Your task to perform on an android device: Go to Yahoo.com Image 0: 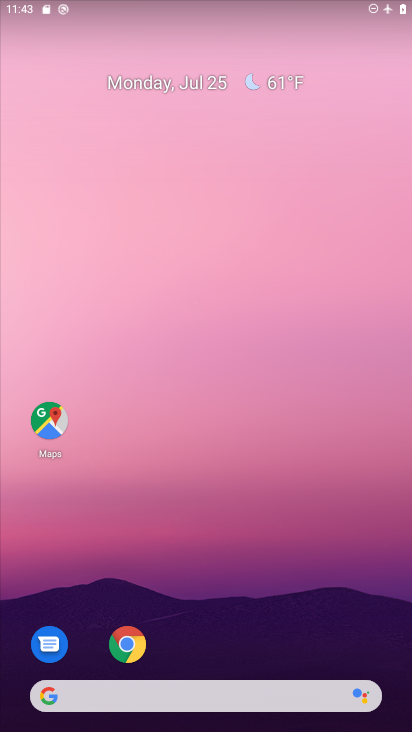
Step 0: drag from (179, 371) to (178, 208)
Your task to perform on an android device: Go to Yahoo.com Image 1: 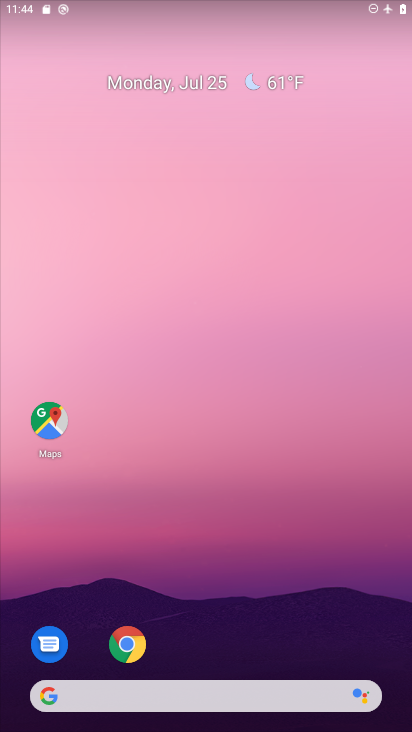
Step 1: drag from (233, 632) to (185, 262)
Your task to perform on an android device: Go to Yahoo.com Image 2: 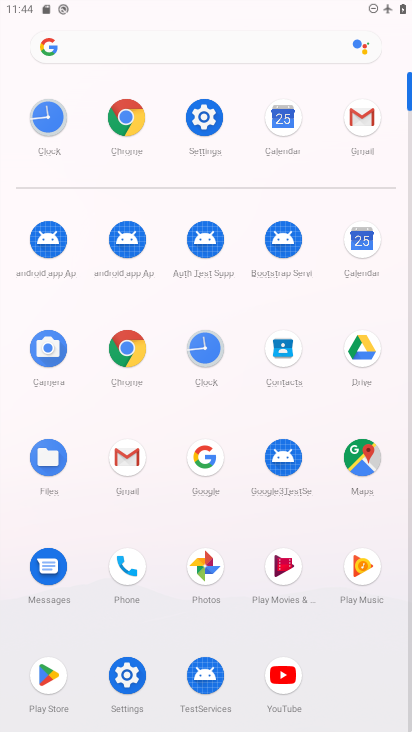
Step 2: click (132, 114)
Your task to perform on an android device: Go to Yahoo.com Image 3: 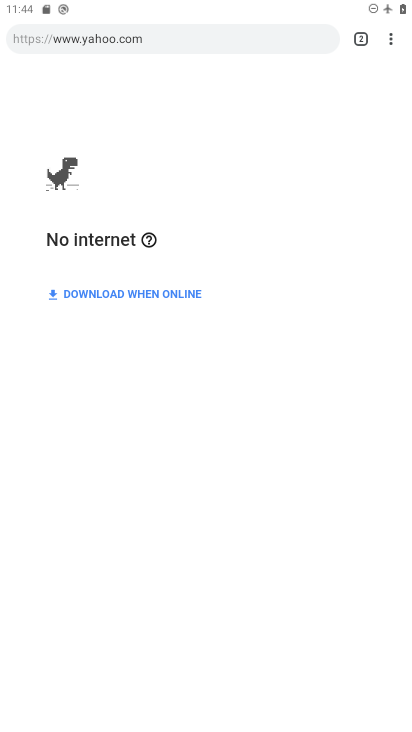
Step 3: click (398, 47)
Your task to perform on an android device: Go to Yahoo.com Image 4: 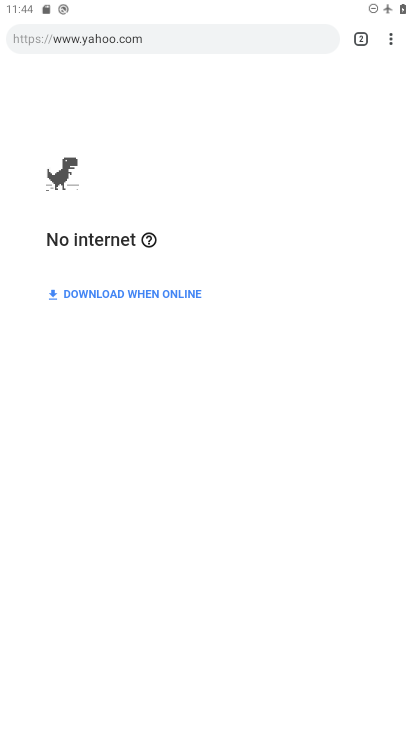
Step 4: click (392, 43)
Your task to perform on an android device: Go to Yahoo.com Image 5: 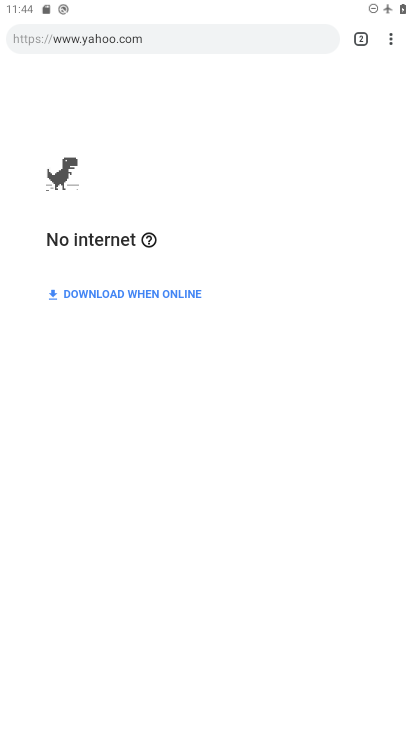
Step 5: click (392, 39)
Your task to perform on an android device: Go to Yahoo.com Image 6: 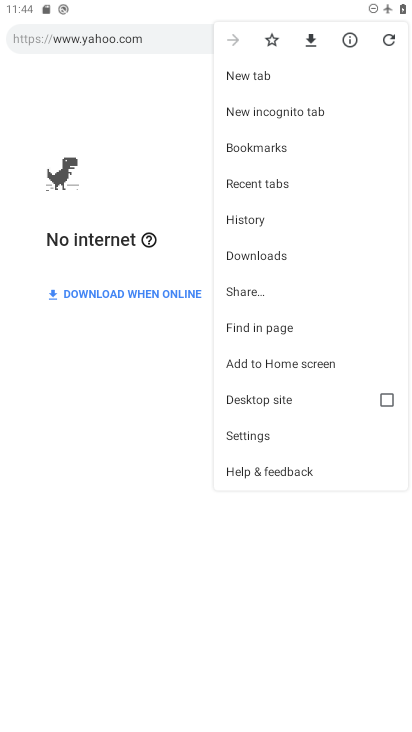
Step 6: click (261, 72)
Your task to perform on an android device: Go to Yahoo.com Image 7: 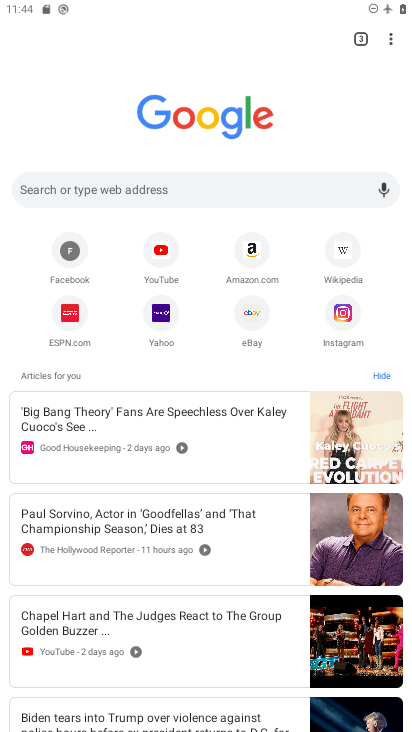
Step 7: click (157, 327)
Your task to perform on an android device: Go to Yahoo.com Image 8: 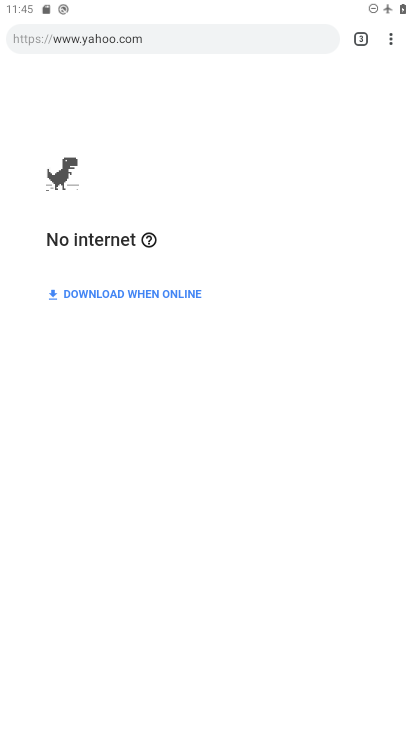
Step 8: task complete